Your task to perform on an android device: Open the calendar app, open the side menu, and click the "Day" option Image 0: 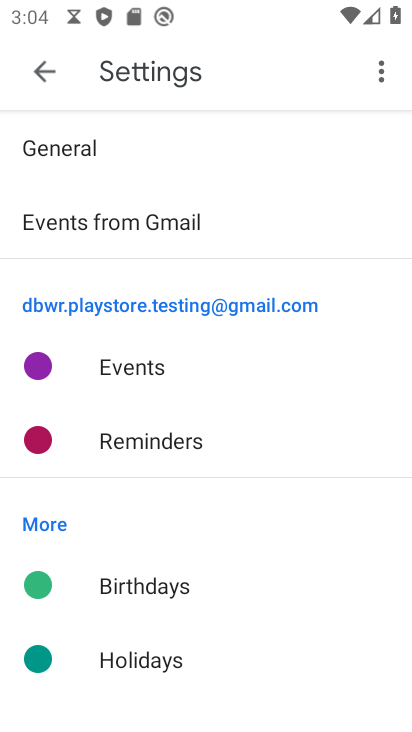
Step 0: press home button
Your task to perform on an android device: Open the calendar app, open the side menu, and click the "Day" option Image 1: 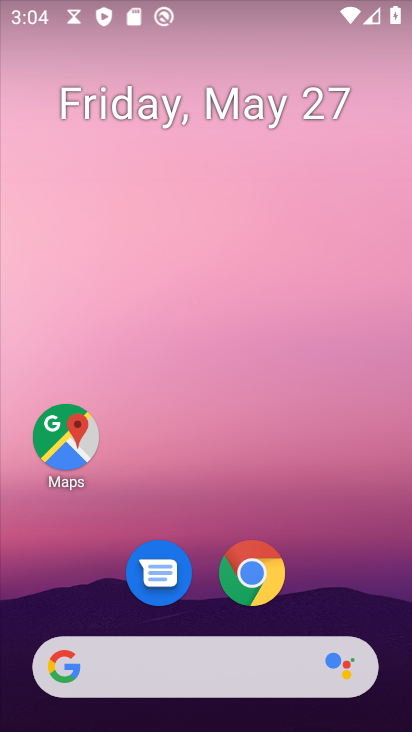
Step 1: drag from (327, 578) to (327, 43)
Your task to perform on an android device: Open the calendar app, open the side menu, and click the "Day" option Image 2: 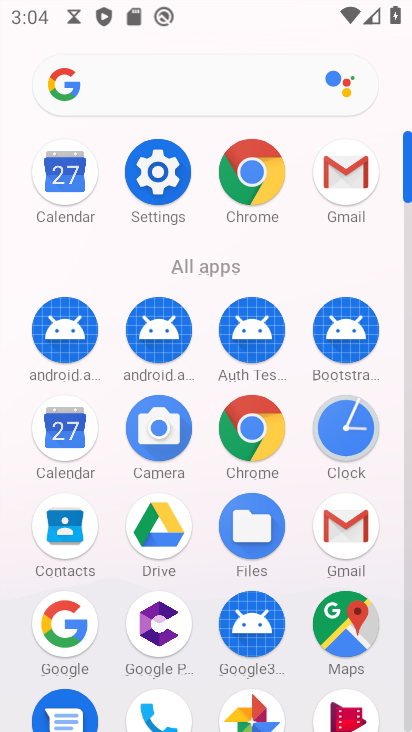
Step 2: click (54, 444)
Your task to perform on an android device: Open the calendar app, open the side menu, and click the "Day" option Image 3: 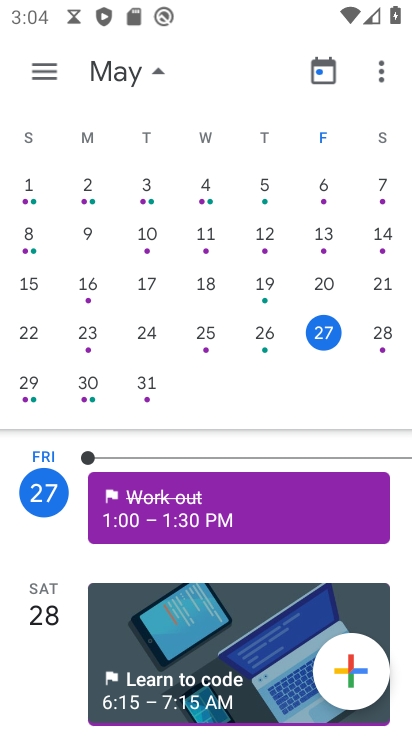
Step 3: click (49, 61)
Your task to perform on an android device: Open the calendar app, open the side menu, and click the "Day" option Image 4: 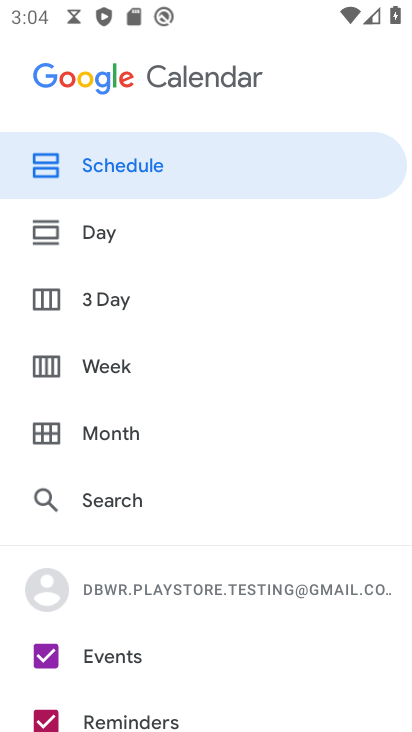
Step 4: click (124, 236)
Your task to perform on an android device: Open the calendar app, open the side menu, and click the "Day" option Image 5: 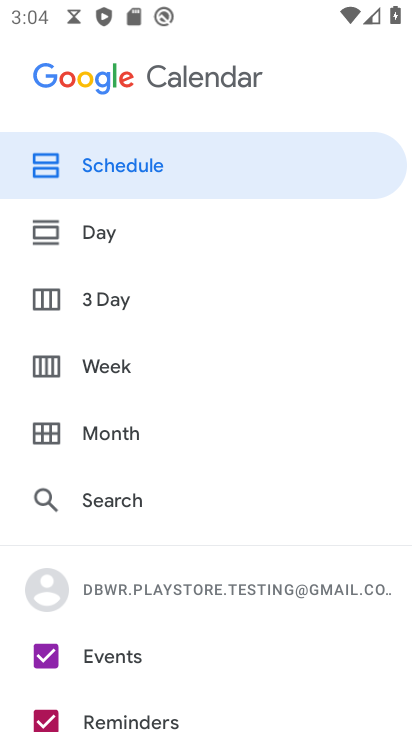
Step 5: click (102, 249)
Your task to perform on an android device: Open the calendar app, open the side menu, and click the "Day" option Image 6: 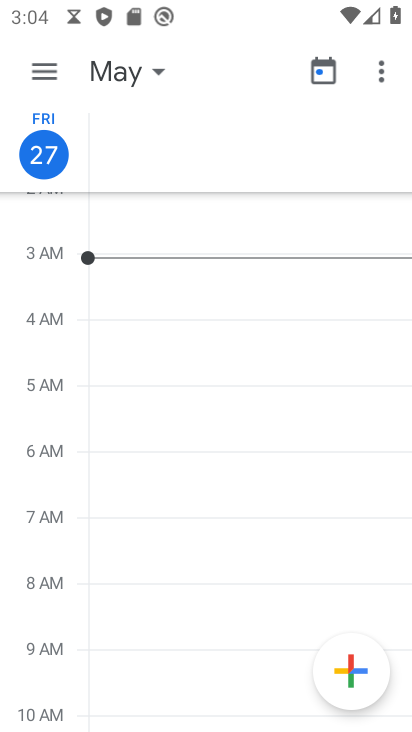
Step 6: task complete